Your task to perform on an android device: open app "Gmail" (install if not already installed) and go to login screen Image 0: 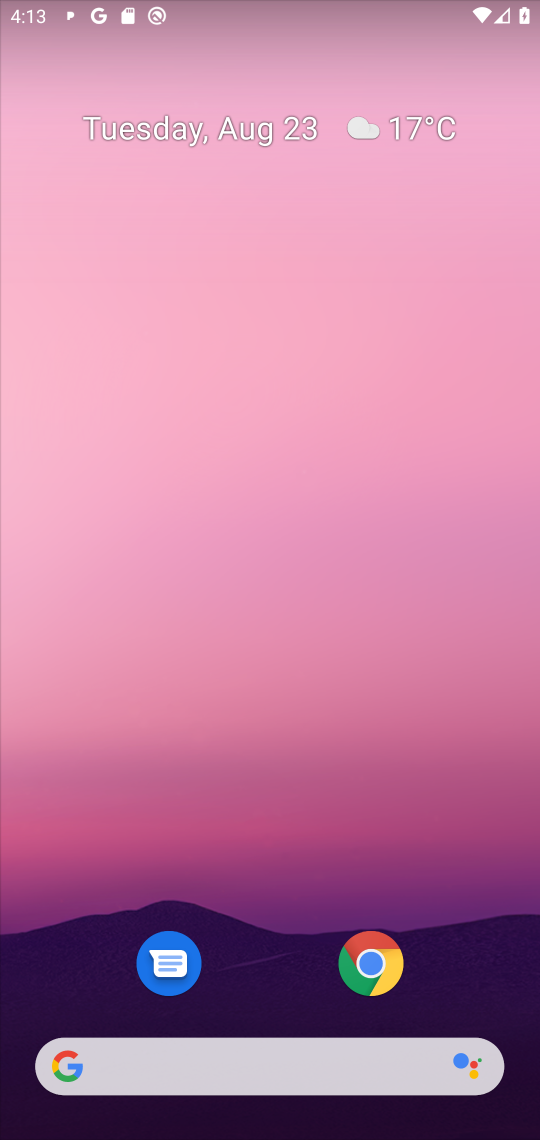
Step 0: drag from (264, 1002) to (297, 87)
Your task to perform on an android device: open app "Gmail" (install if not already installed) and go to login screen Image 1: 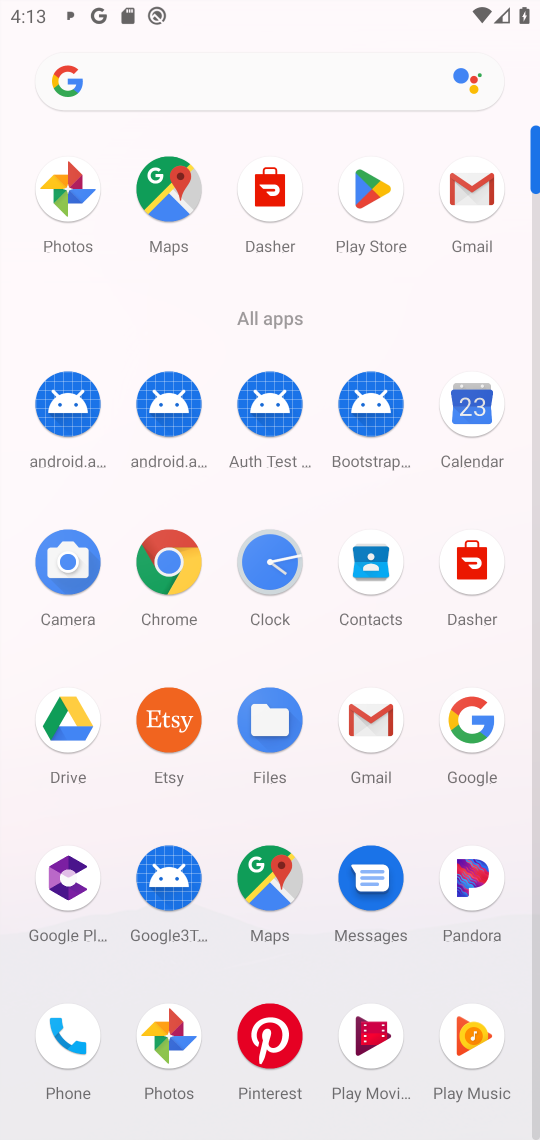
Step 1: click (465, 183)
Your task to perform on an android device: open app "Gmail" (install if not already installed) and go to login screen Image 2: 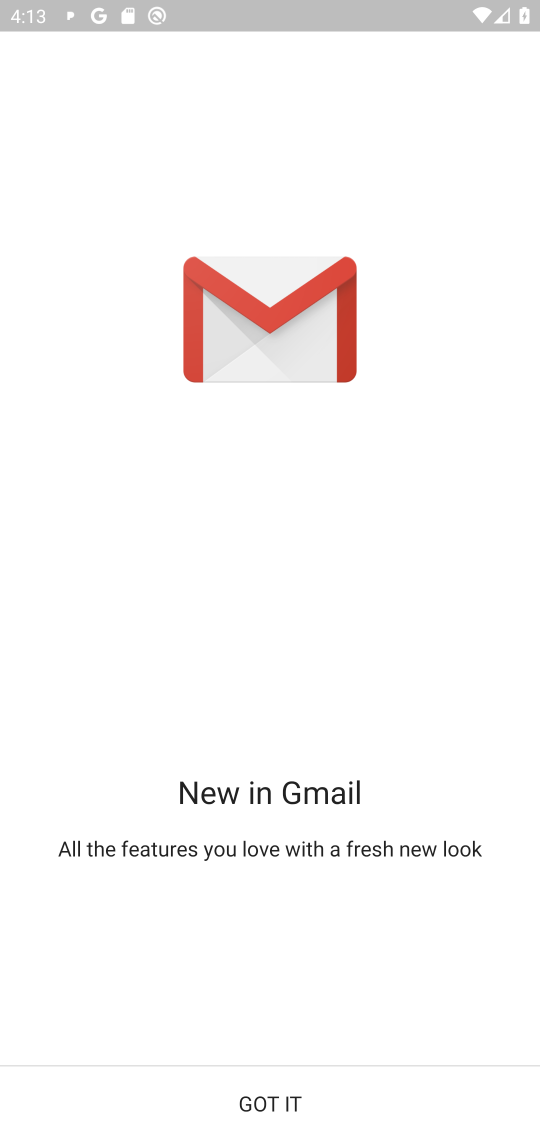
Step 2: click (277, 1112)
Your task to perform on an android device: open app "Gmail" (install if not already installed) and go to login screen Image 3: 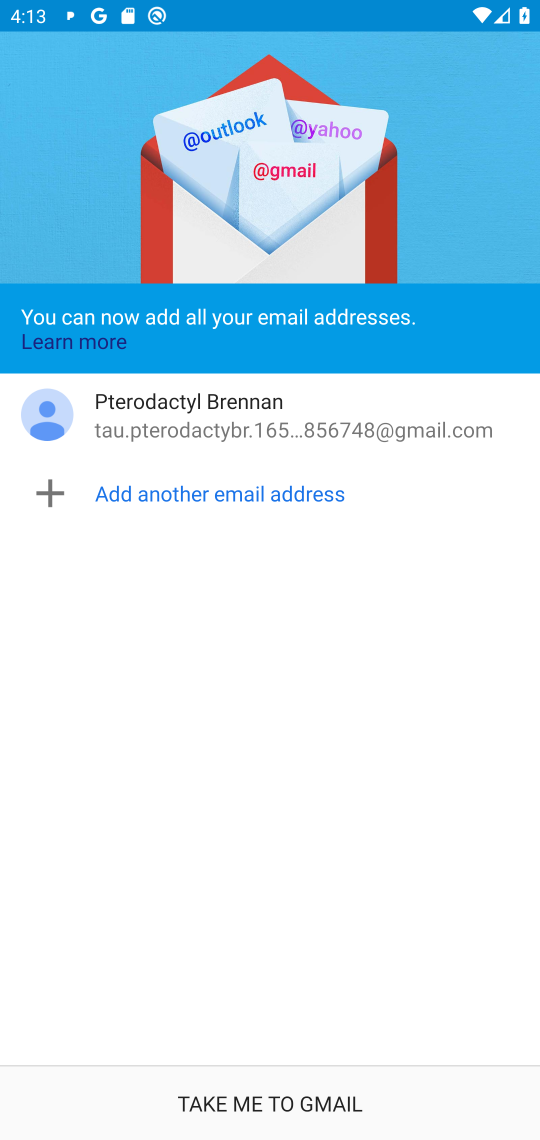
Step 3: click (267, 1108)
Your task to perform on an android device: open app "Gmail" (install if not already installed) and go to login screen Image 4: 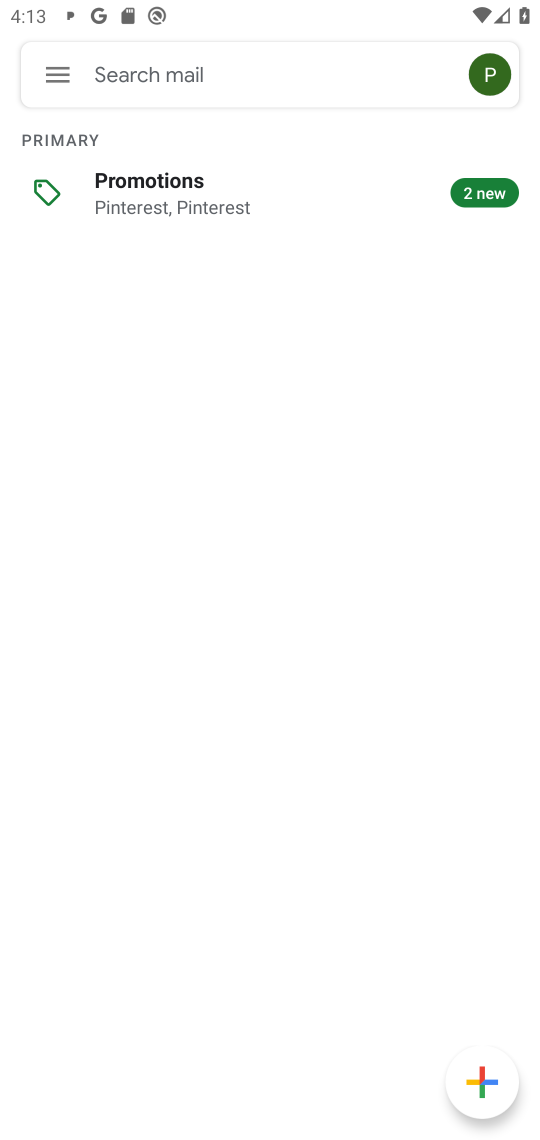
Step 4: press home button
Your task to perform on an android device: open app "Gmail" (install if not already installed) and go to login screen Image 5: 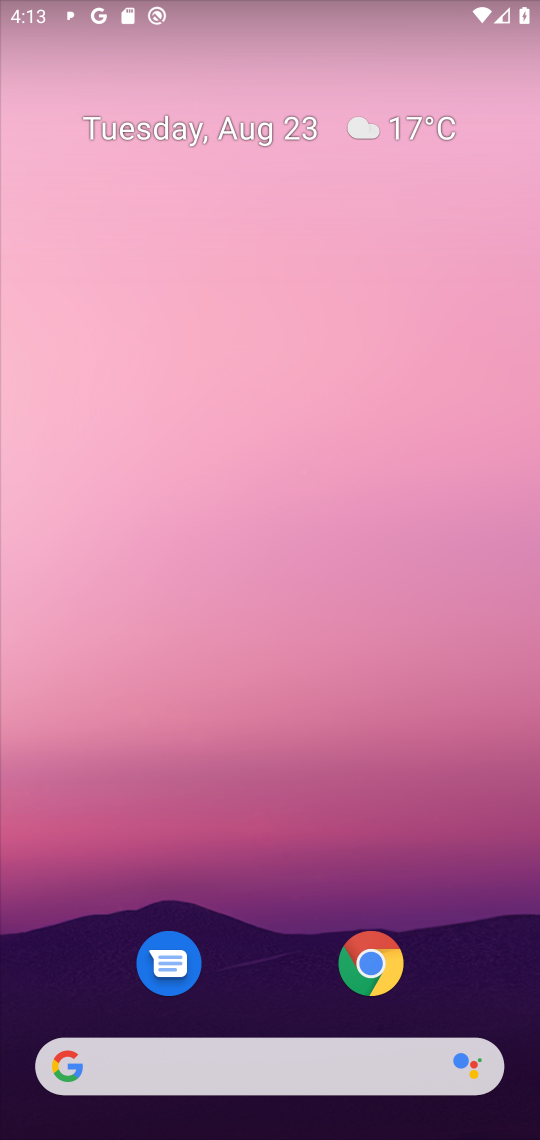
Step 5: drag from (281, 1003) to (271, 184)
Your task to perform on an android device: open app "Gmail" (install if not already installed) and go to login screen Image 6: 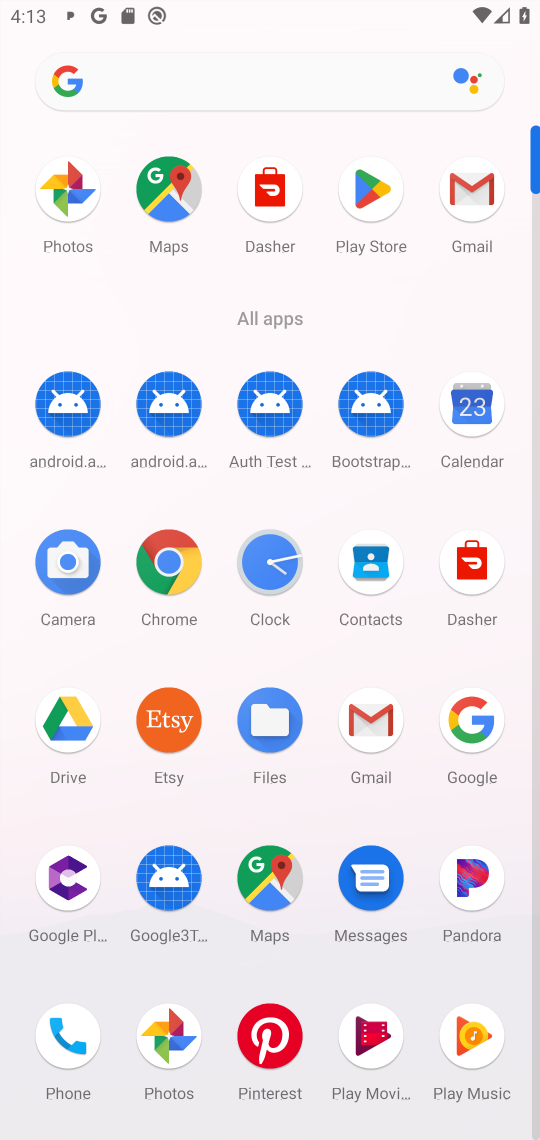
Step 6: click (365, 179)
Your task to perform on an android device: open app "Gmail" (install if not already installed) and go to login screen Image 7: 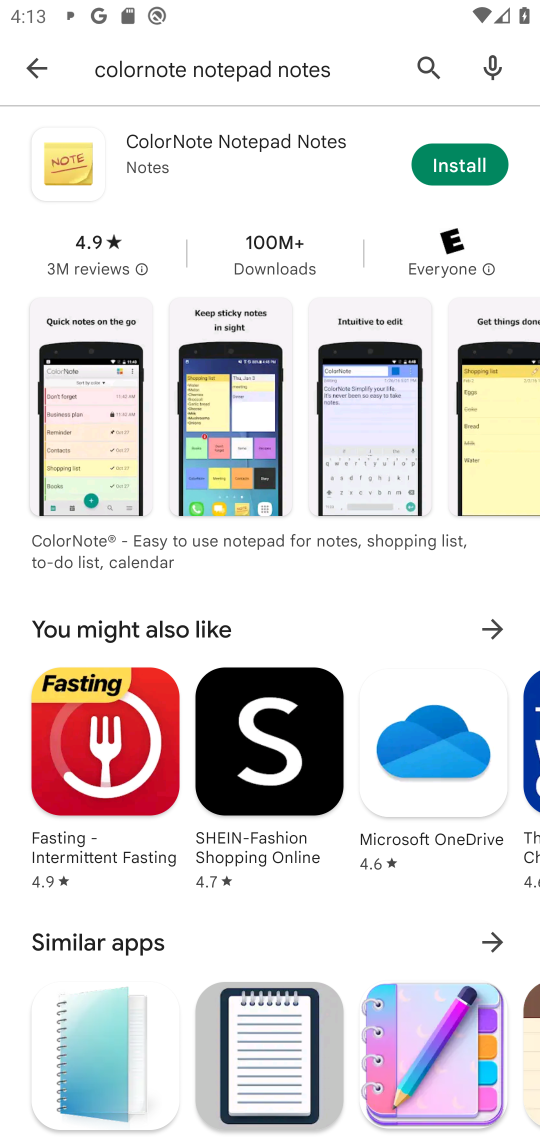
Step 7: click (422, 61)
Your task to perform on an android device: open app "Gmail" (install if not already installed) and go to login screen Image 8: 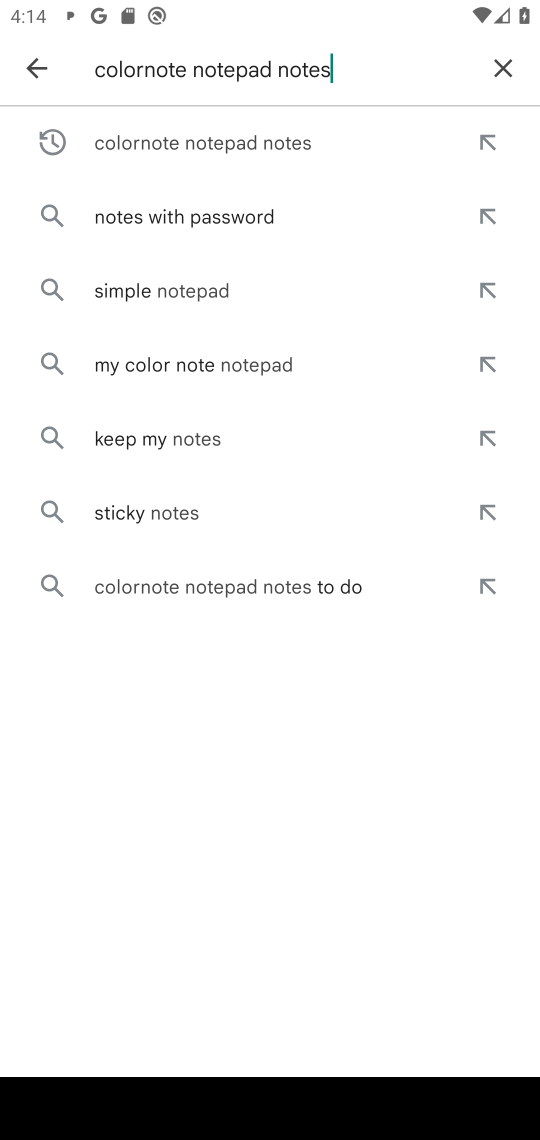
Step 8: click (500, 71)
Your task to perform on an android device: open app "Gmail" (install if not already installed) and go to login screen Image 9: 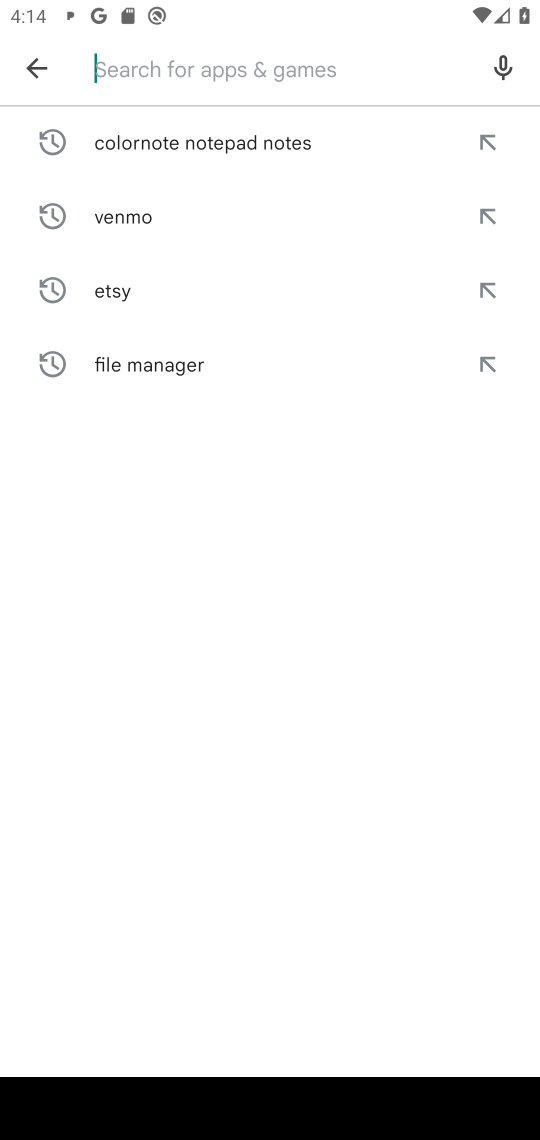
Step 9: type "gmail"
Your task to perform on an android device: open app "Gmail" (install if not already installed) and go to login screen Image 10: 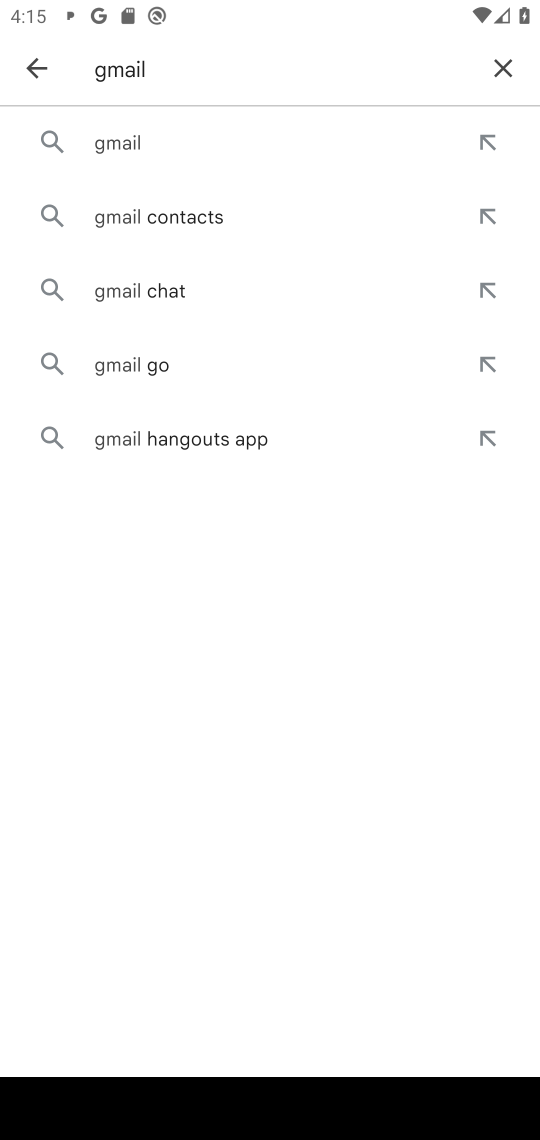
Step 10: click (155, 144)
Your task to perform on an android device: open app "Gmail" (install if not already installed) and go to login screen Image 11: 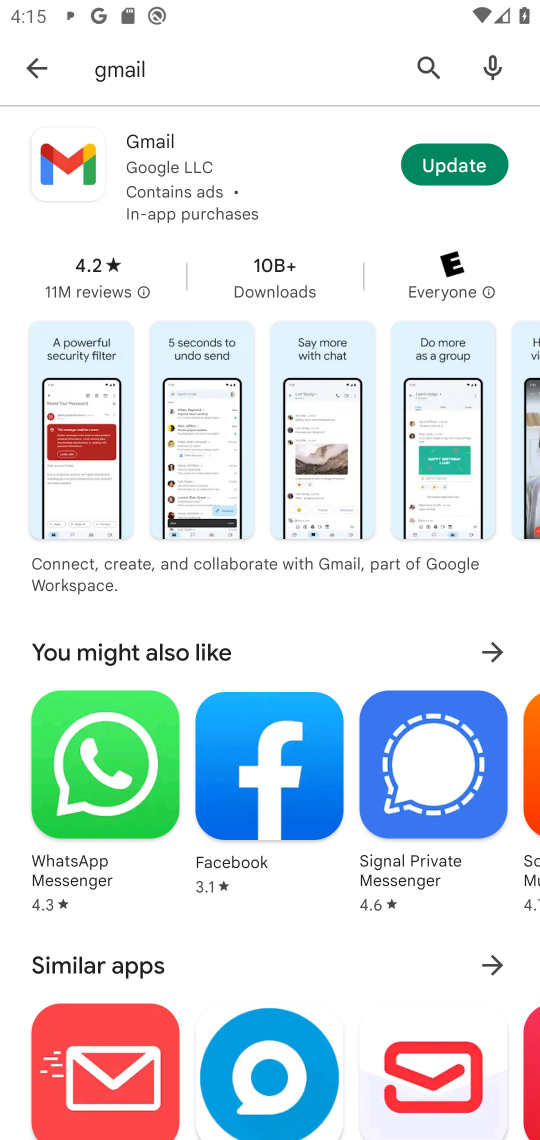
Step 11: click (448, 164)
Your task to perform on an android device: open app "Gmail" (install if not already installed) and go to login screen Image 12: 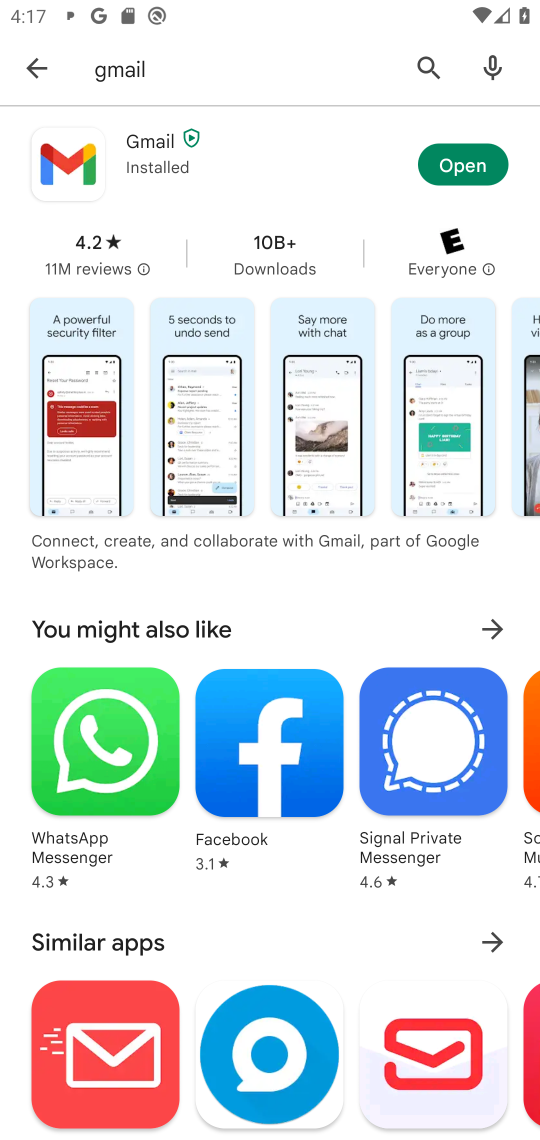
Step 12: click (477, 167)
Your task to perform on an android device: open app "Gmail" (install if not already installed) and go to login screen Image 13: 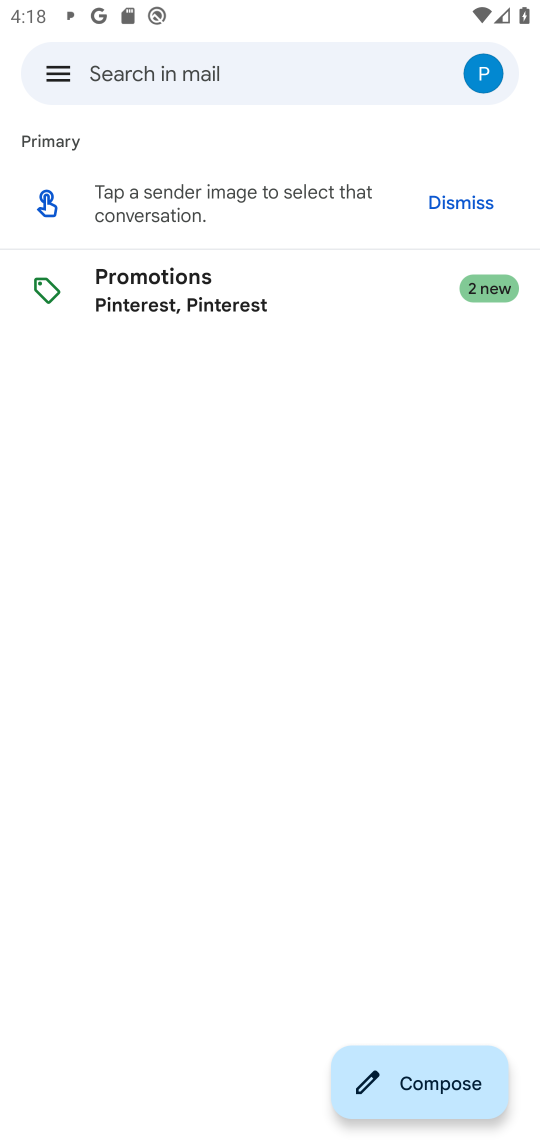
Step 13: task complete